Your task to perform on an android device: What's the latest news in astrophysics? Image 0: 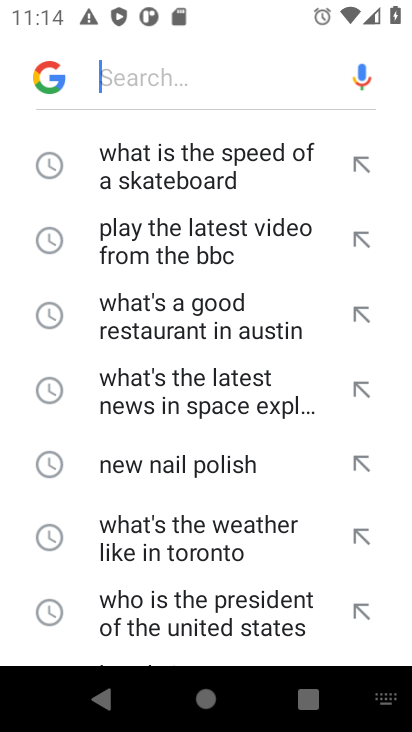
Step 0: press home button
Your task to perform on an android device: What's the latest news in astrophysics? Image 1: 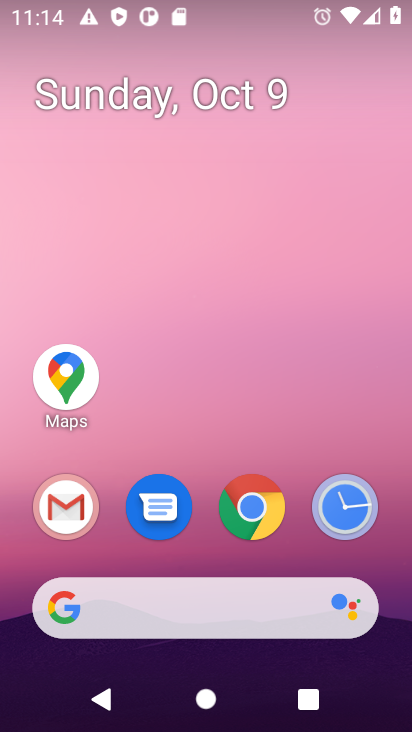
Step 1: click (215, 606)
Your task to perform on an android device: What's the latest news in astrophysics? Image 2: 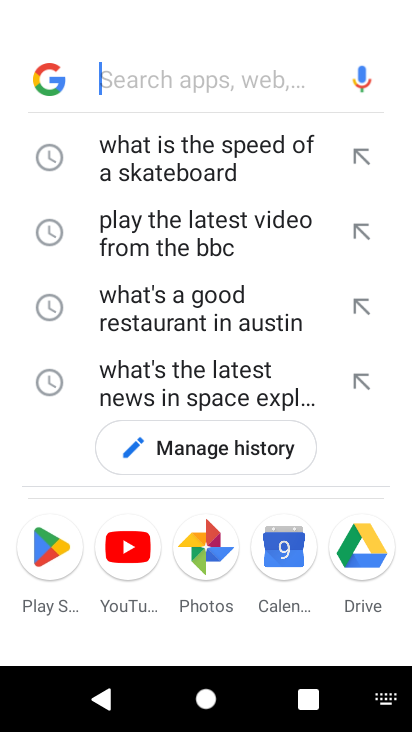
Step 2: type "What's the latest news in astrophysics"
Your task to perform on an android device: What's the latest news in astrophysics? Image 3: 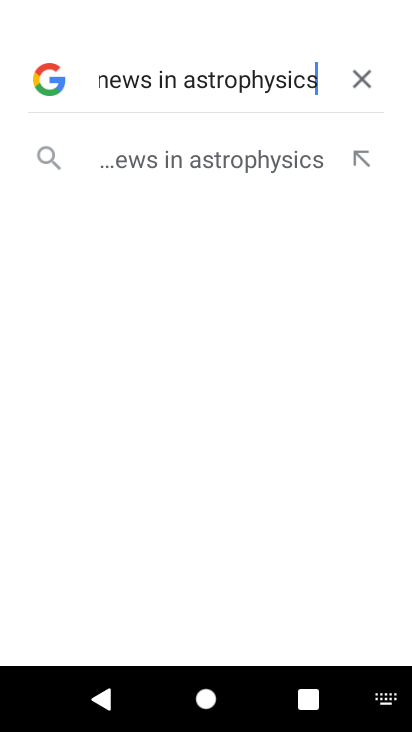
Step 3: press enter
Your task to perform on an android device: What's the latest news in astrophysics? Image 4: 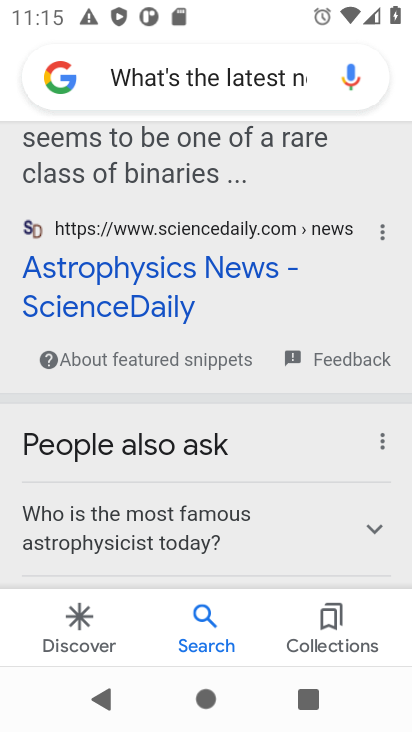
Step 4: click (185, 292)
Your task to perform on an android device: What's the latest news in astrophysics? Image 5: 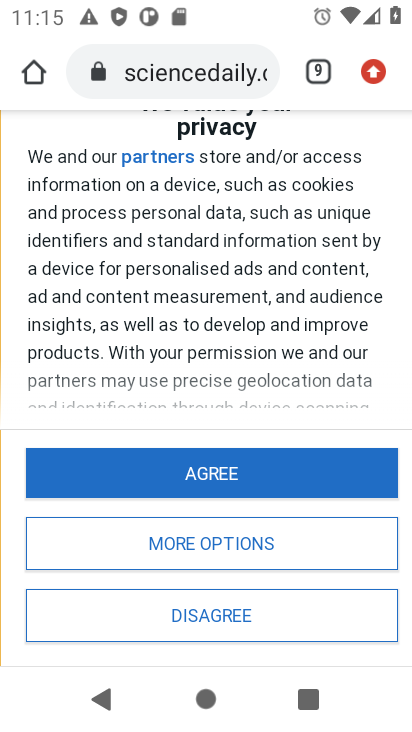
Step 5: click (251, 475)
Your task to perform on an android device: What's the latest news in astrophysics? Image 6: 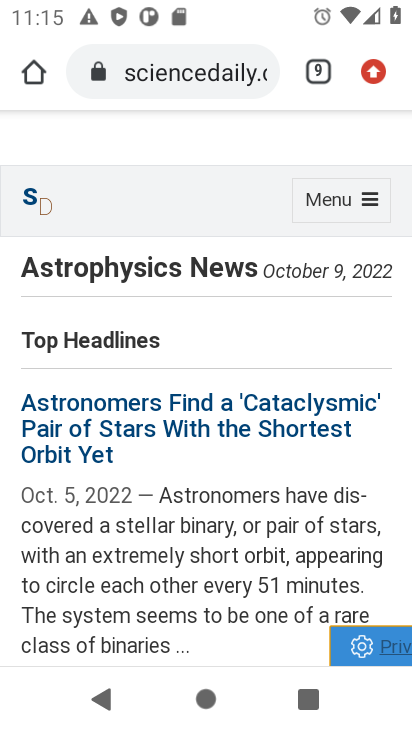
Step 6: task complete